Your task to perform on an android device: Open eBay Image 0: 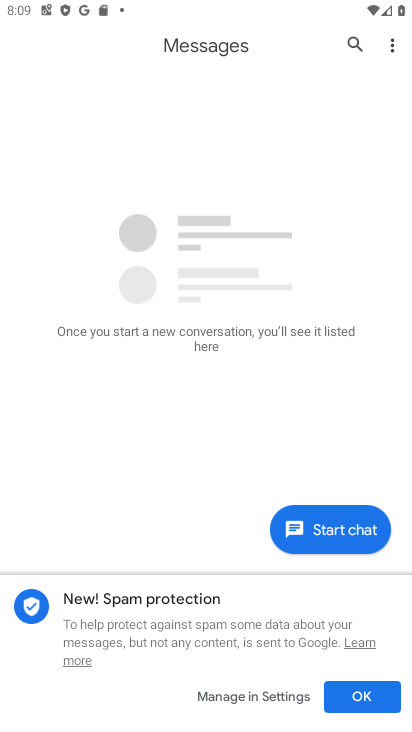
Step 0: press home button
Your task to perform on an android device: Open eBay Image 1: 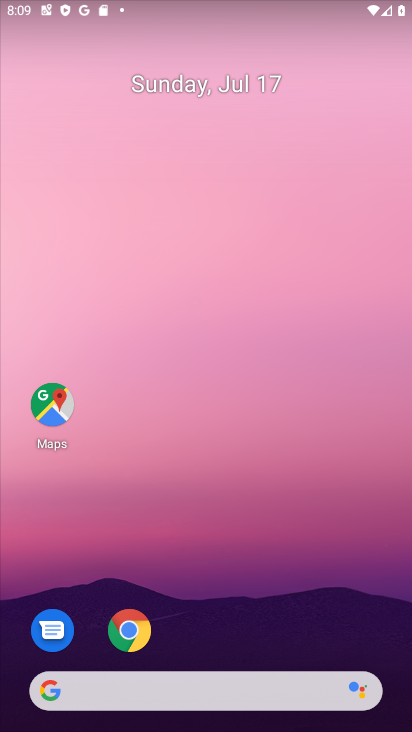
Step 1: click (136, 640)
Your task to perform on an android device: Open eBay Image 2: 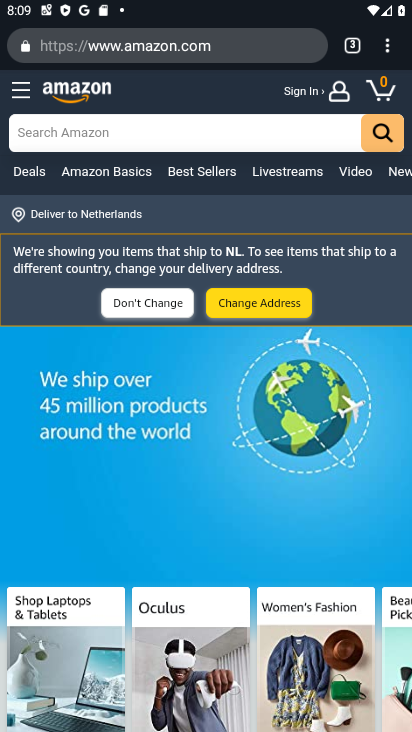
Step 2: click (189, 56)
Your task to perform on an android device: Open eBay Image 3: 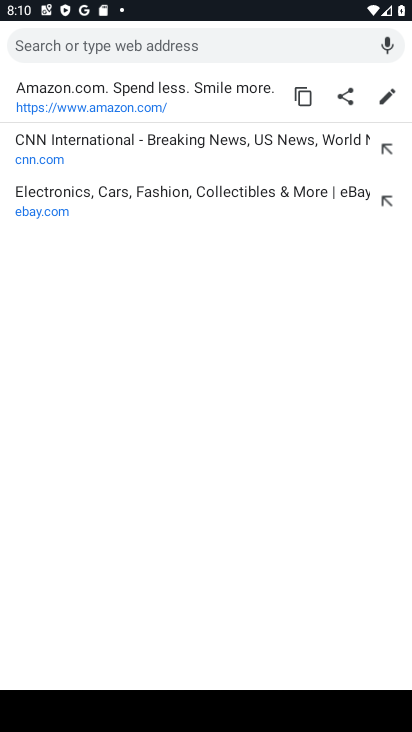
Step 3: type "ebay"
Your task to perform on an android device: Open eBay Image 4: 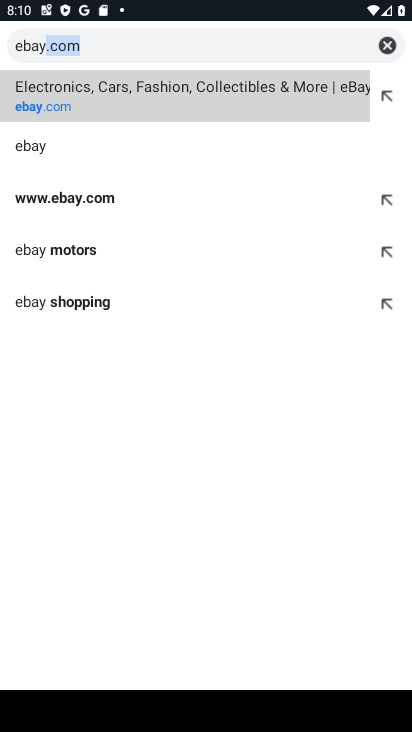
Step 4: click (48, 100)
Your task to perform on an android device: Open eBay Image 5: 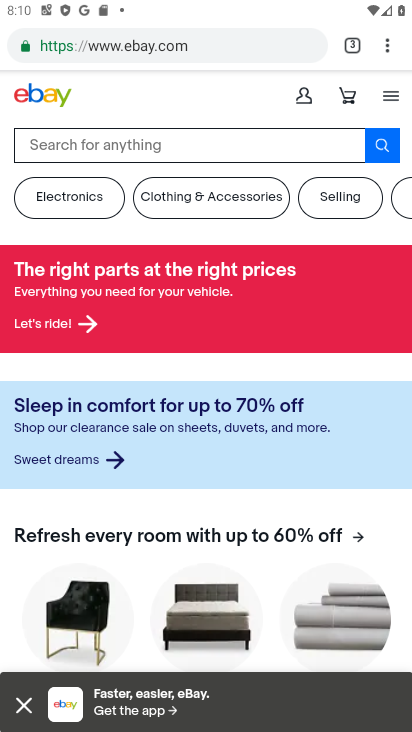
Step 5: task complete